Your task to perform on an android device: turn vacation reply on in the gmail app Image 0: 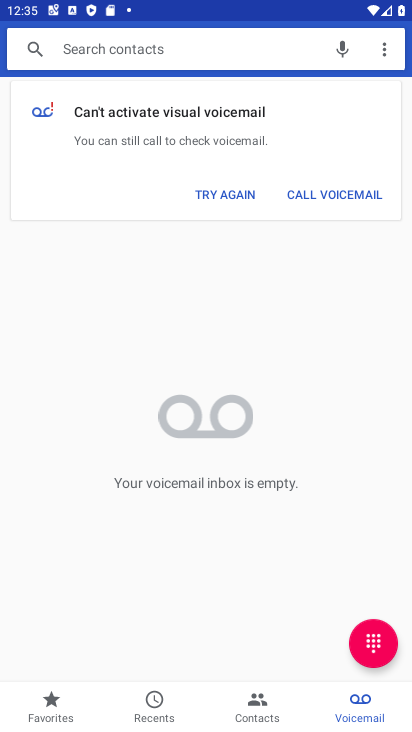
Step 0: press home button
Your task to perform on an android device: turn vacation reply on in the gmail app Image 1: 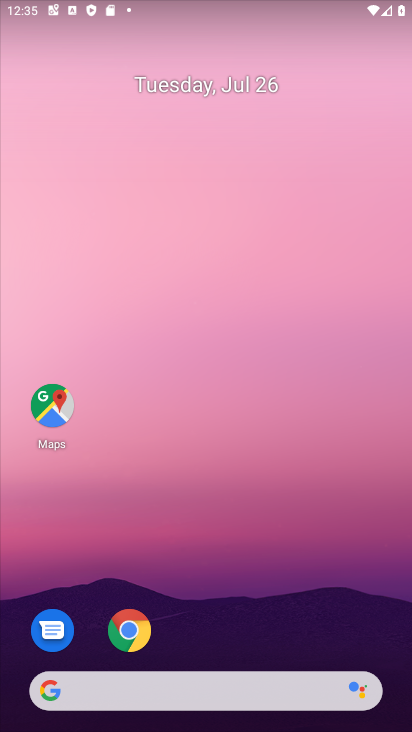
Step 1: drag from (396, 676) to (295, 87)
Your task to perform on an android device: turn vacation reply on in the gmail app Image 2: 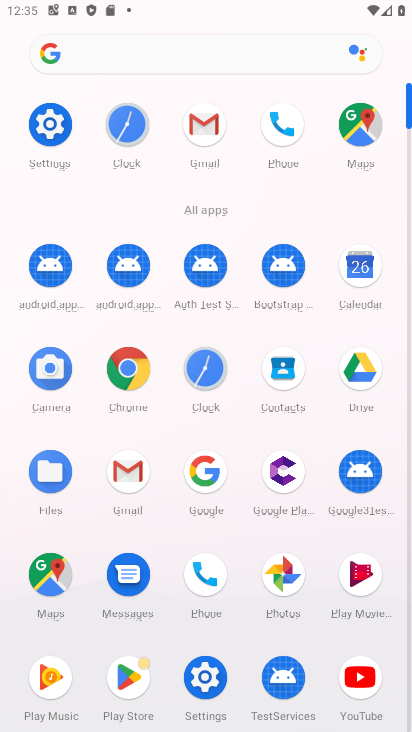
Step 2: click (128, 471)
Your task to perform on an android device: turn vacation reply on in the gmail app Image 3: 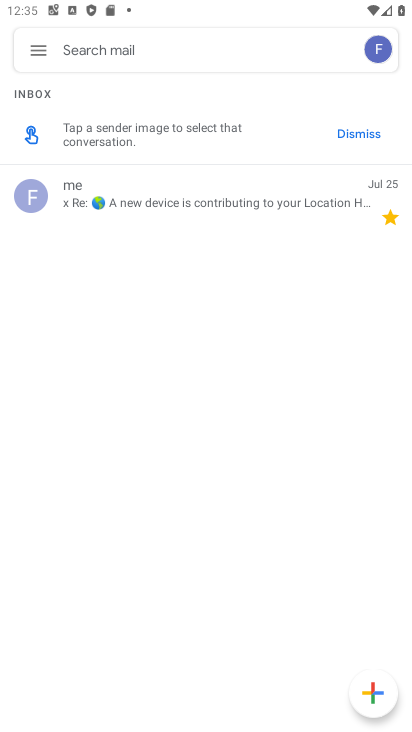
Step 3: click (43, 51)
Your task to perform on an android device: turn vacation reply on in the gmail app Image 4: 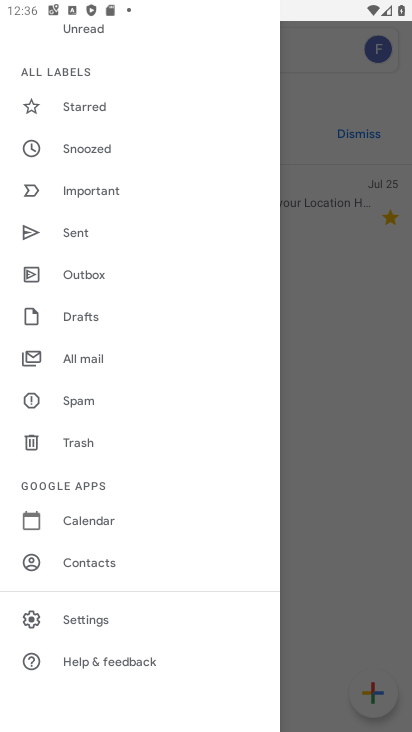
Step 4: click (89, 619)
Your task to perform on an android device: turn vacation reply on in the gmail app Image 5: 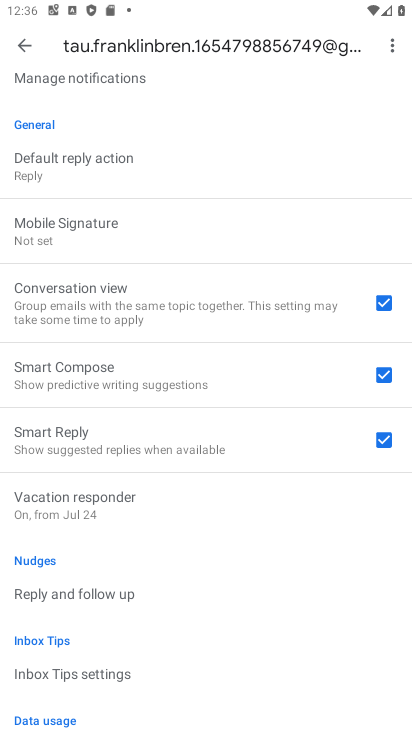
Step 5: click (95, 494)
Your task to perform on an android device: turn vacation reply on in the gmail app Image 6: 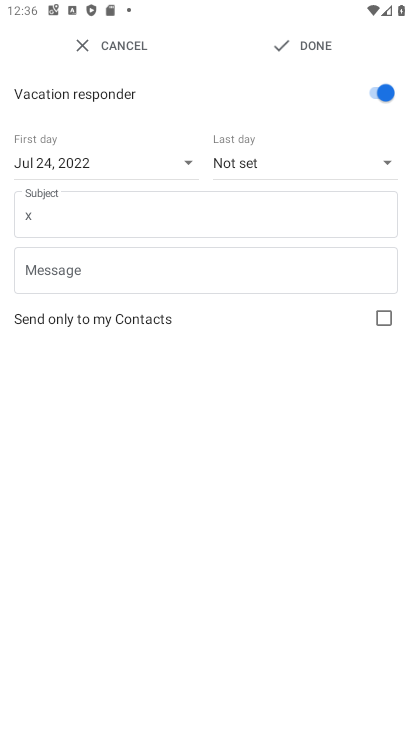
Step 6: click (306, 40)
Your task to perform on an android device: turn vacation reply on in the gmail app Image 7: 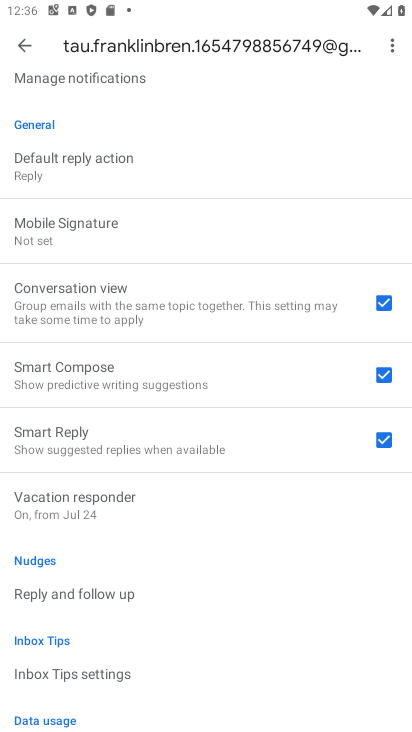
Step 7: task complete